Your task to perform on an android device: Open location settings Image 0: 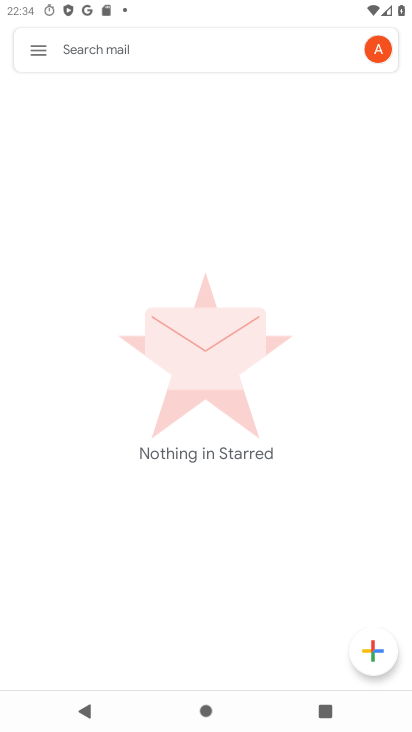
Step 0: press home button
Your task to perform on an android device: Open location settings Image 1: 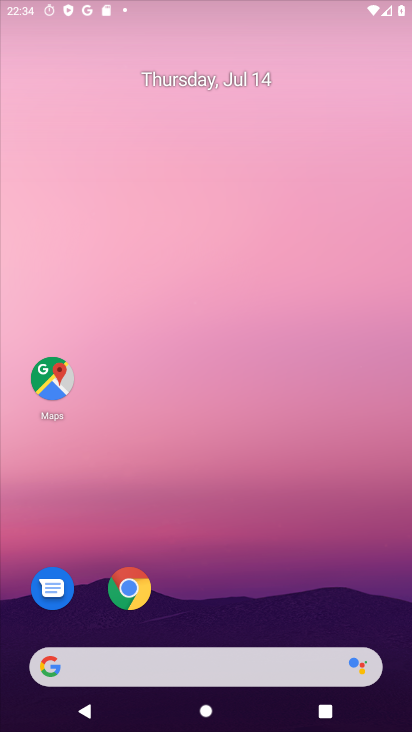
Step 1: drag from (203, 634) to (209, 138)
Your task to perform on an android device: Open location settings Image 2: 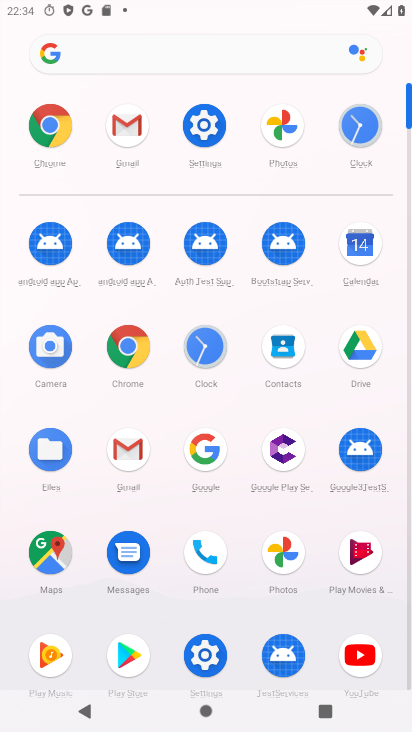
Step 2: click (202, 120)
Your task to perform on an android device: Open location settings Image 3: 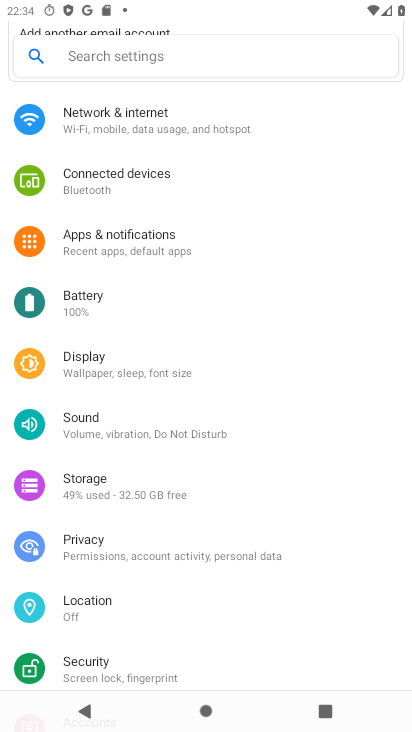
Step 3: drag from (158, 605) to (151, 461)
Your task to perform on an android device: Open location settings Image 4: 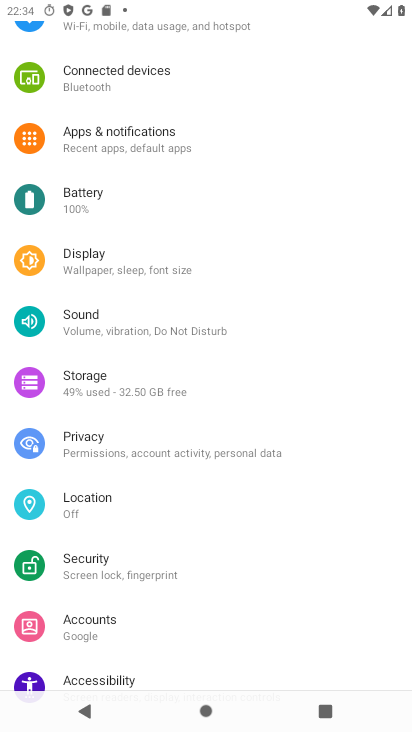
Step 4: click (128, 505)
Your task to perform on an android device: Open location settings Image 5: 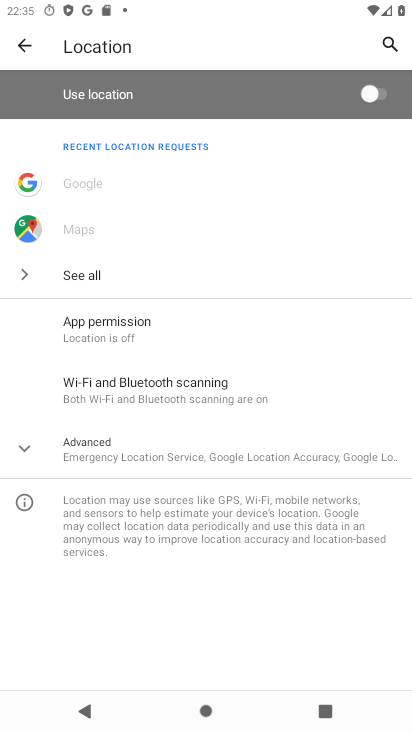
Step 5: task complete